Your task to perform on an android device: turn off airplane mode Image 0: 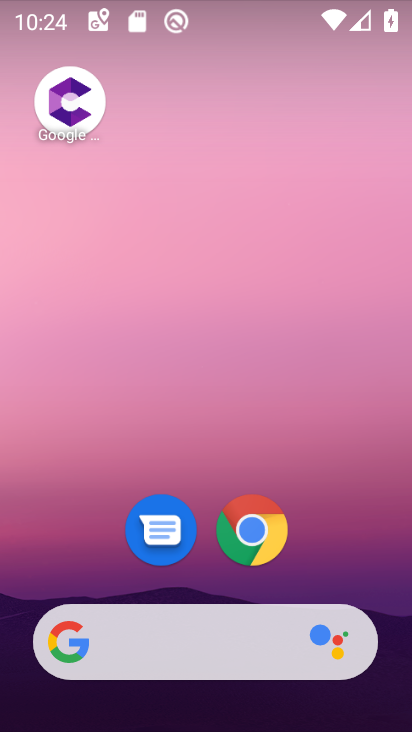
Step 0: drag from (396, 647) to (391, 163)
Your task to perform on an android device: turn off airplane mode Image 1: 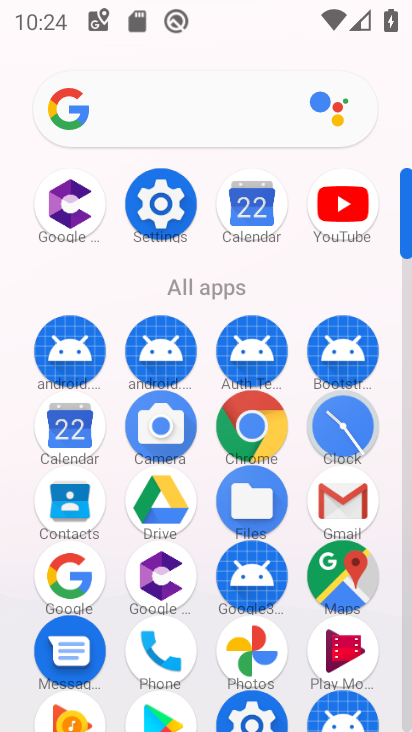
Step 1: click (154, 191)
Your task to perform on an android device: turn off airplane mode Image 2: 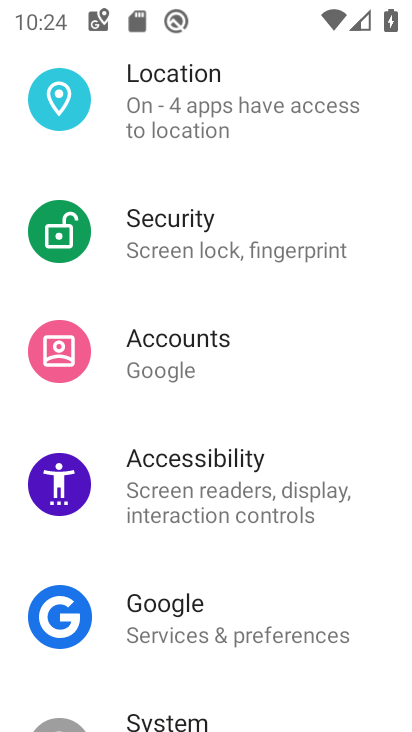
Step 2: drag from (373, 87) to (400, 636)
Your task to perform on an android device: turn off airplane mode Image 3: 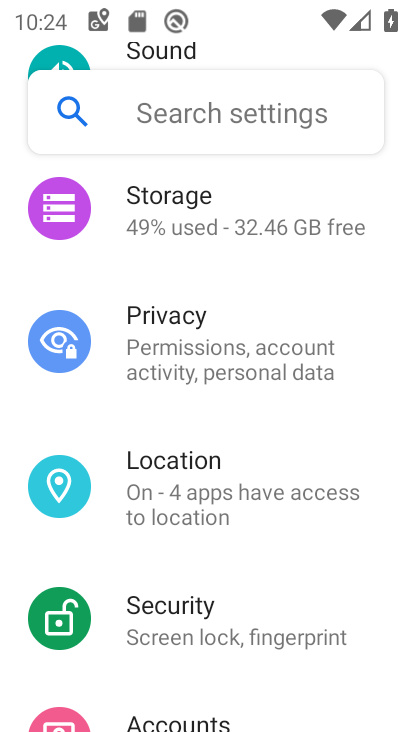
Step 3: drag from (406, 195) to (382, 614)
Your task to perform on an android device: turn off airplane mode Image 4: 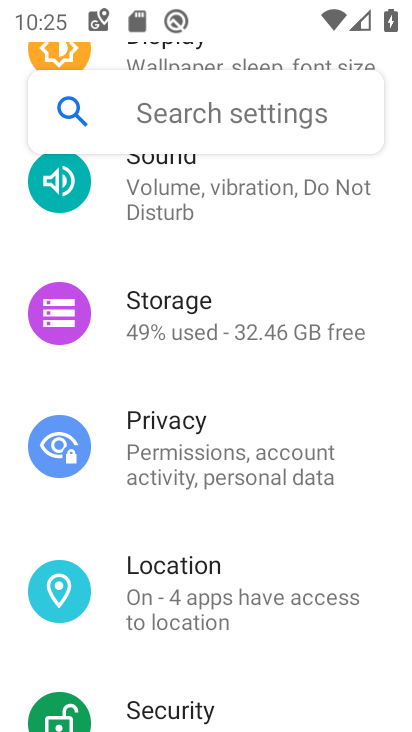
Step 4: drag from (386, 175) to (380, 645)
Your task to perform on an android device: turn off airplane mode Image 5: 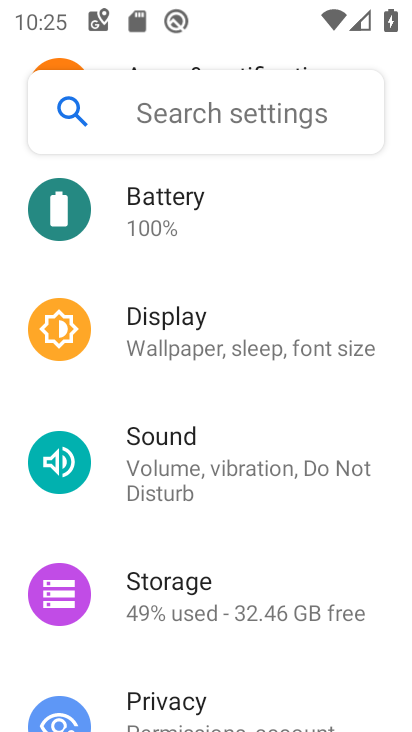
Step 5: drag from (388, 230) to (369, 620)
Your task to perform on an android device: turn off airplane mode Image 6: 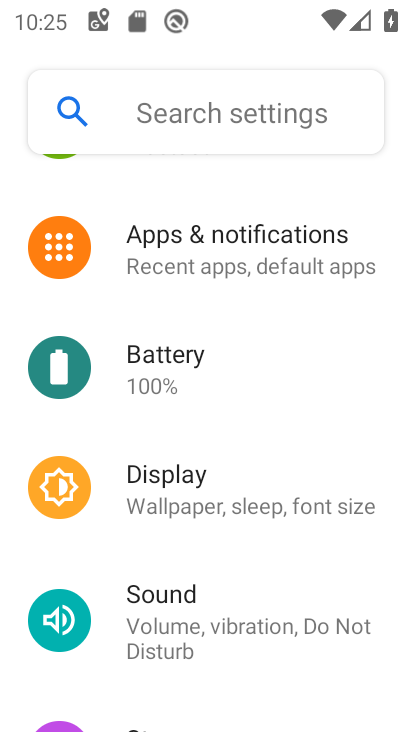
Step 6: drag from (376, 179) to (364, 638)
Your task to perform on an android device: turn off airplane mode Image 7: 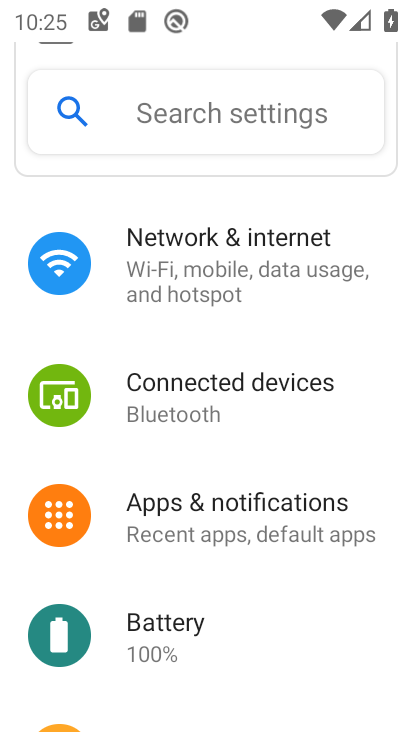
Step 7: drag from (396, 183) to (374, 637)
Your task to perform on an android device: turn off airplane mode Image 8: 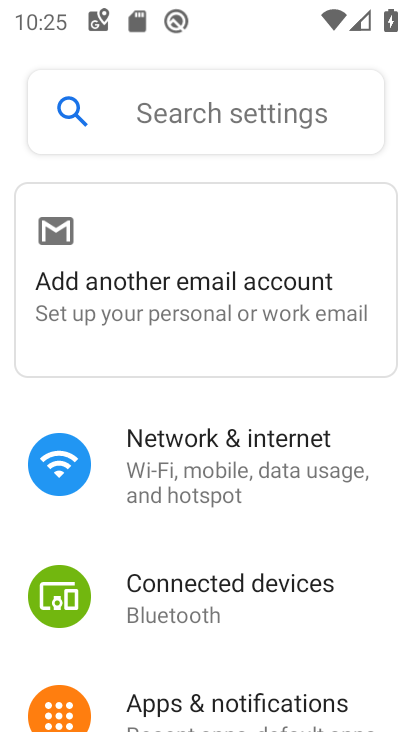
Step 8: click (227, 450)
Your task to perform on an android device: turn off airplane mode Image 9: 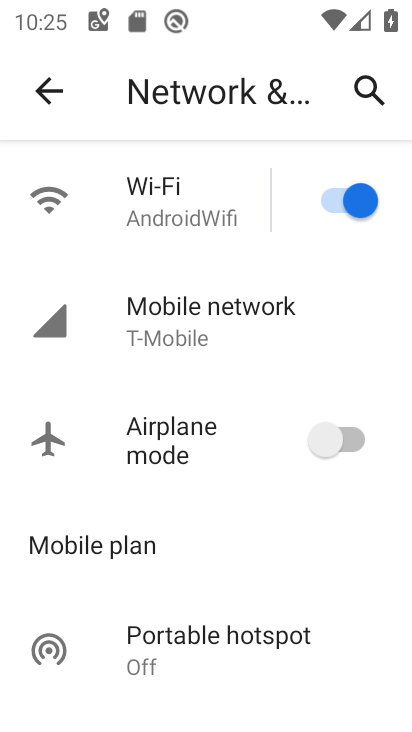
Step 9: task complete